Your task to perform on an android device: Go to privacy settings Image 0: 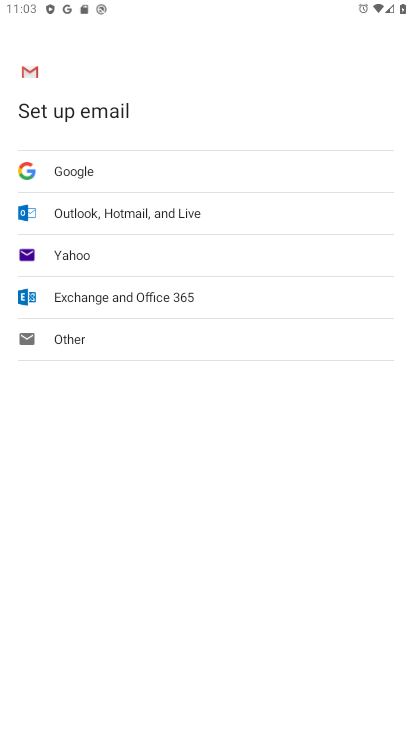
Step 0: press home button
Your task to perform on an android device: Go to privacy settings Image 1: 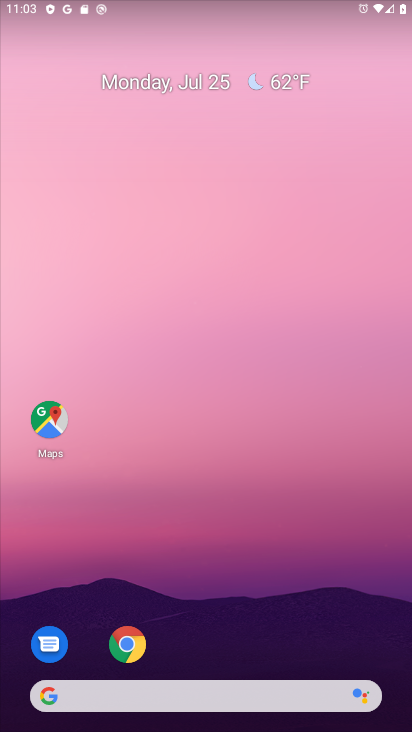
Step 1: drag from (325, 616) to (315, 56)
Your task to perform on an android device: Go to privacy settings Image 2: 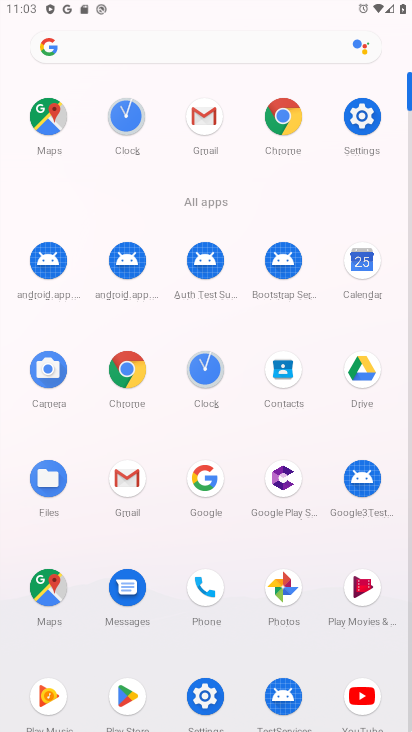
Step 2: click (362, 119)
Your task to perform on an android device: Go to privacy settings Image 3: 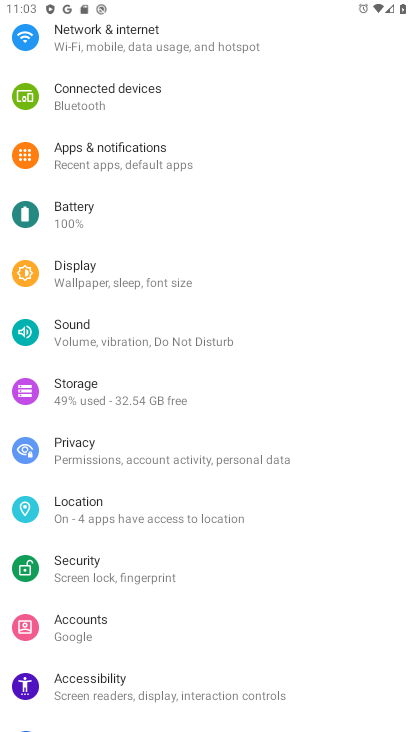
Step 3: click (207, 448)
Your task to perform on an android device: Go to privacy settings Image 4: 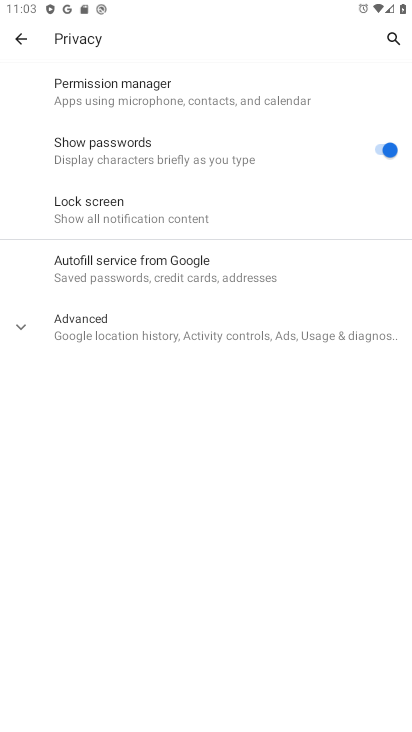
Step 4: task complete